Your task to perform on an android device: Show me the alarms in the clock app Image 0: 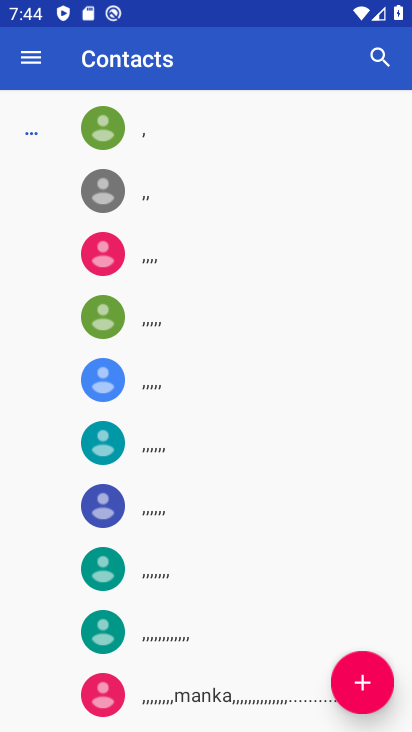
Step 0: press home button
Your task to perform on an android device: Show me the alarms in the clock app Image 1: 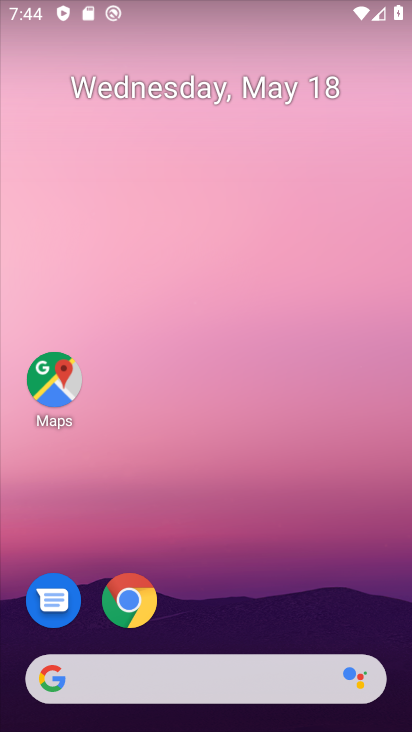
Step 1: drag from (238, 708) to (349, 187)
Your task to perform on an android device: Show me the alarms in the clock app Image 2: 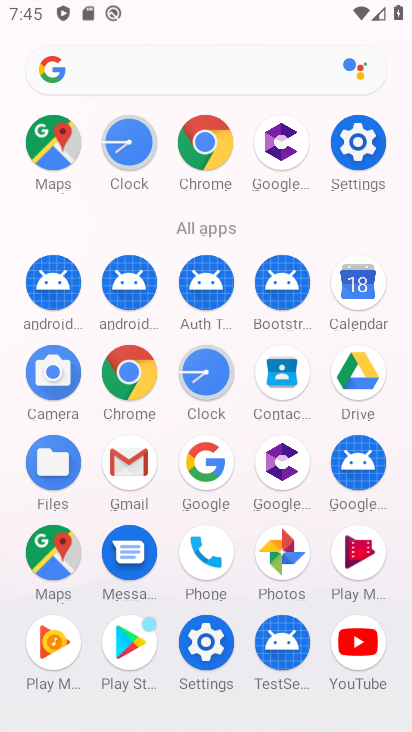
Step 2: click (201, 357)
Your task to perform on an android device: Show me the alarms in the clock app Image 3: 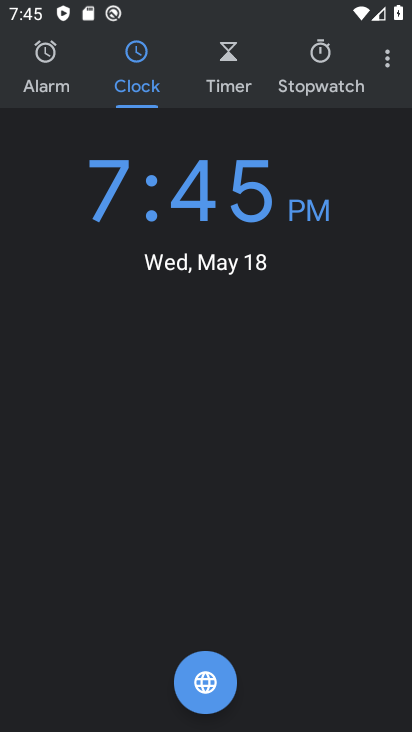
Step 3: click (44, 45)
Your task to perform on an android device: Show me the alarms in the clock app Image 4: 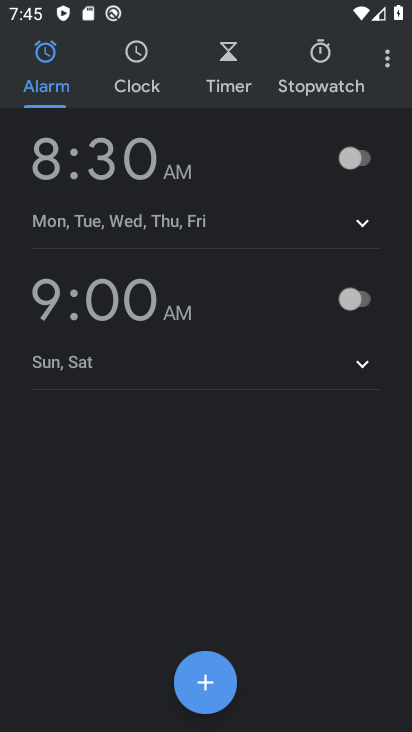
Step 4: task complete